Your task to perform on an android device: show emergency info Image 0: 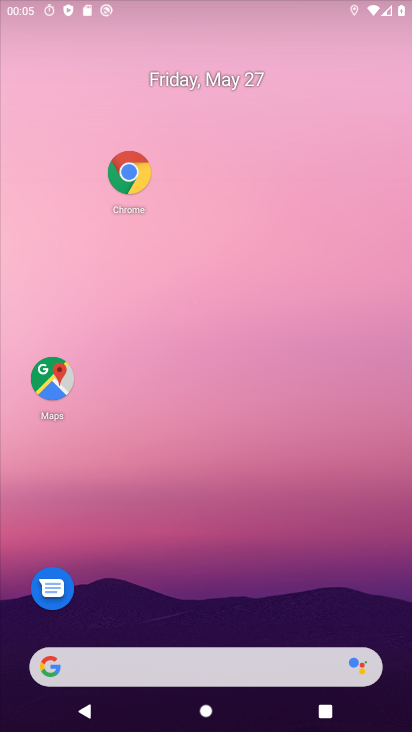
Step 0: drag from (212, 652) to (197, 277)
Your task to perform on an android device: show emergency info Image 1: 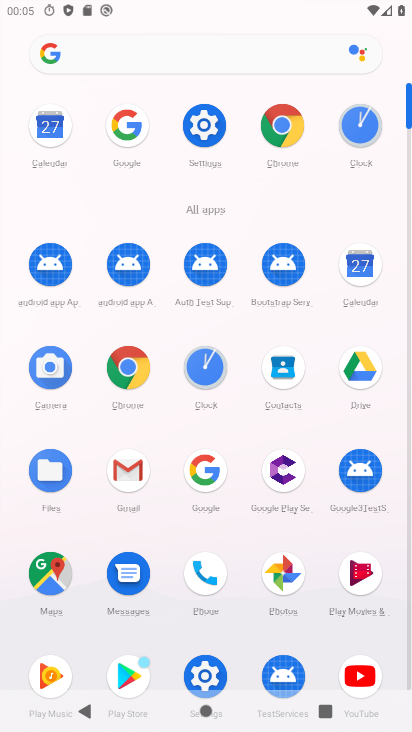
Step 1: click (216, 132)
Your task to perform on an android device: show emergency info Image 2: 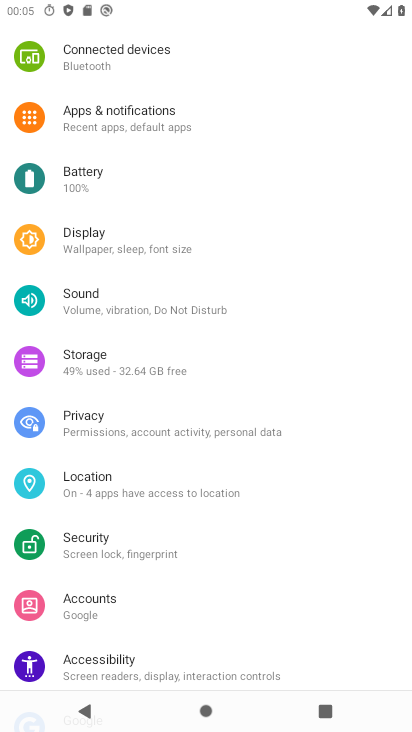
Step 2: drag from (169, 679) to (150, 352)
Your task to perform on an android device: show emergency info Image 3: 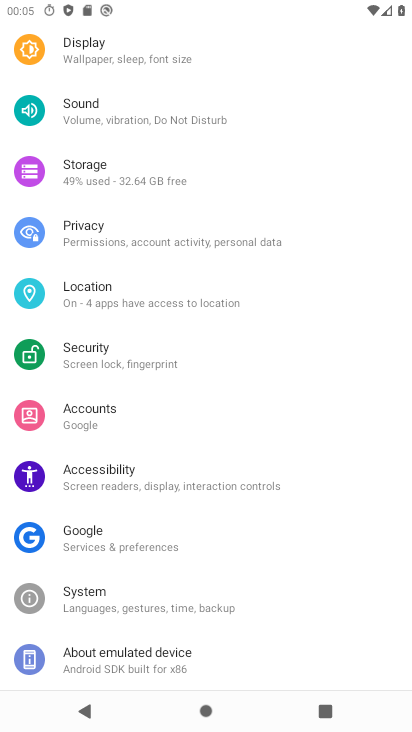
Step 3: click (137, 662)
Your task to perform on an android device: show emergency info Image 4: 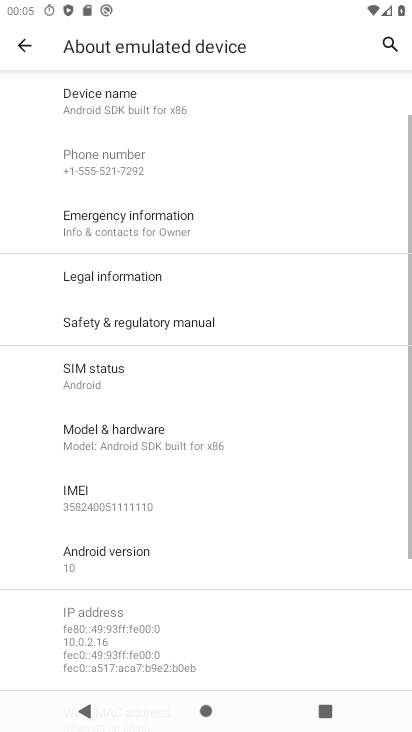
Step 4: task complete